Your task to perform on an android device: set default search engine in the chrome app Image 0: 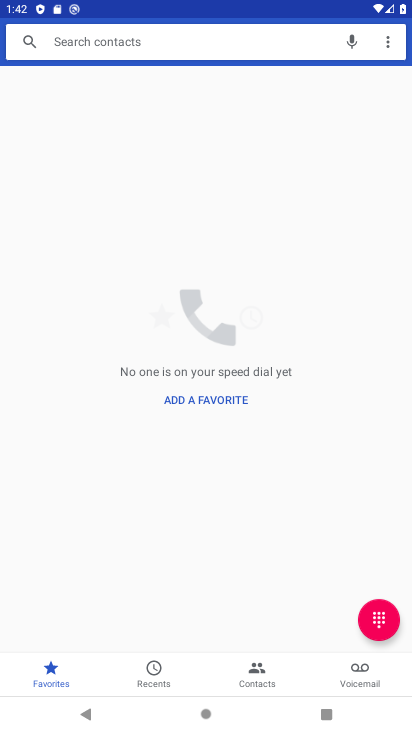
Step 0: press home button
Your task to perform on an android device: set default search engine in the chrome app Image 1: 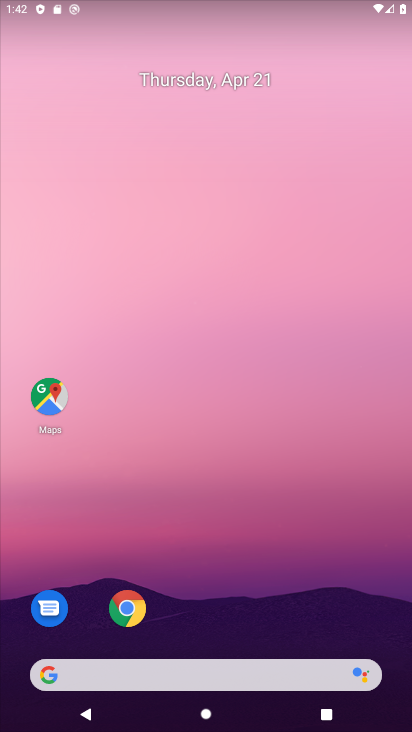
Step 1: drag from (374, 555) to (411, 45)
Your task to perform on an android device: set default search engine in the chrome app Image 2: 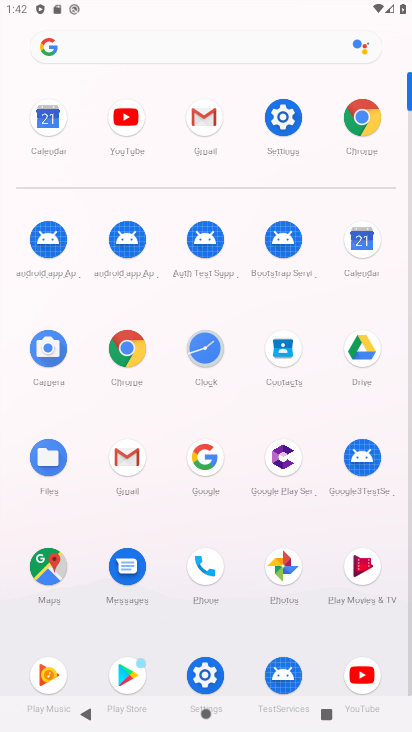
Step 2: click (356, 135)
Your task to perform on an android device: set default search engine in the chrome app Image 3: 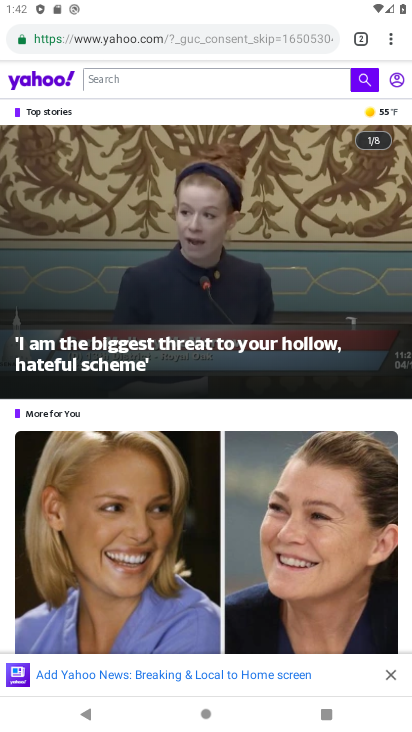
Step 3: drag from (396, 45) to (270, 471)
Your task to perform on an android device: set default search engine in the chrome app Image 4: 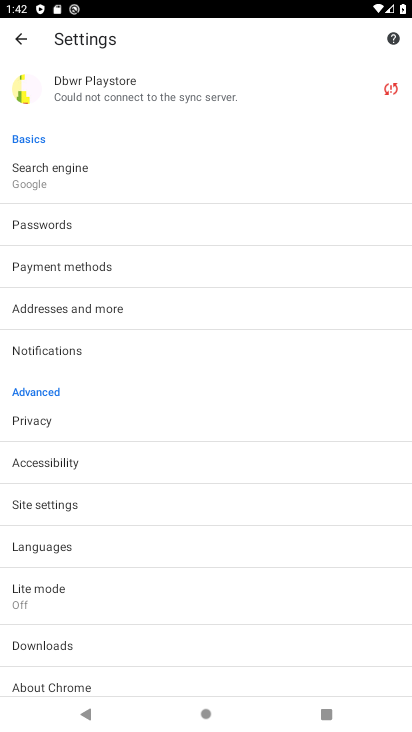
Step 4: click (97, 170)
Your task to perform on an android device: set default search engine in the chrome app Image 5: 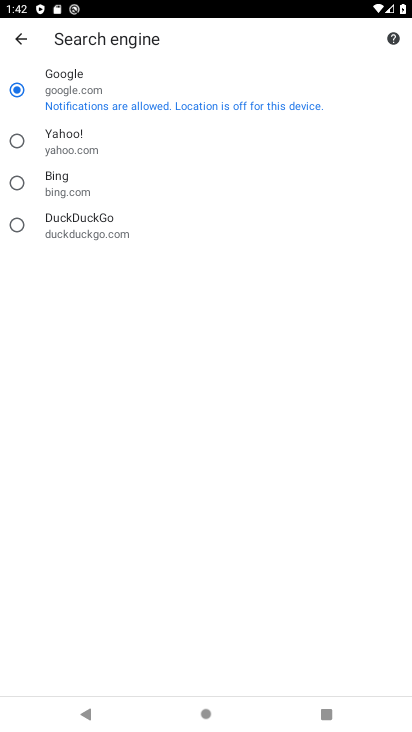
Step 5: task complete